Your task to perform on an android device: move a message to another label in the gmail app Image 0: 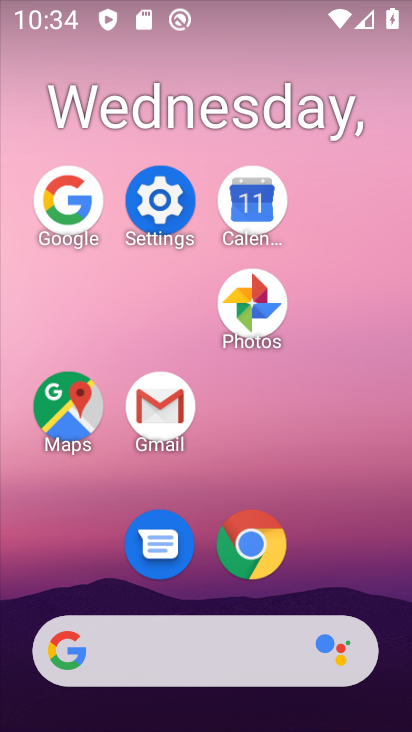
Step 0: click (158, 408)
Your task to perform on an android device: move a message to another label in the gmail app Image 1: 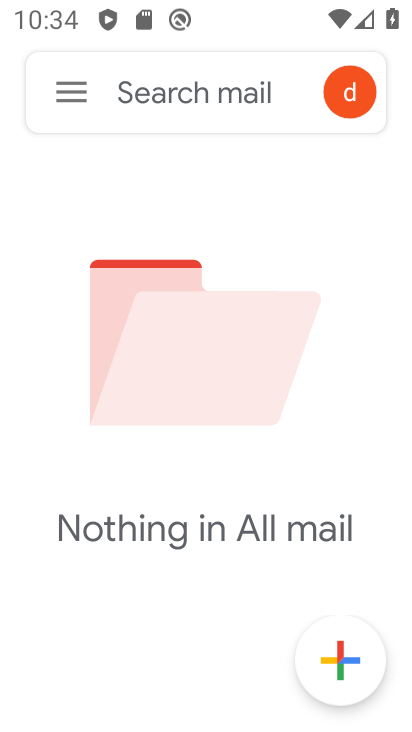
Step 1: click (58, 101)
Your task to perform on an android device: move a message to another label in the gmail app Image 2: 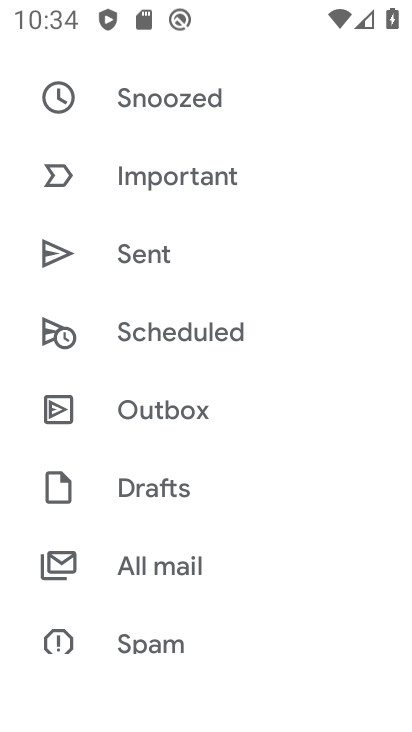
Step 2: click (199, 552)
Your task to perform on an android device: move a message to another label in the gmail app Image 3: 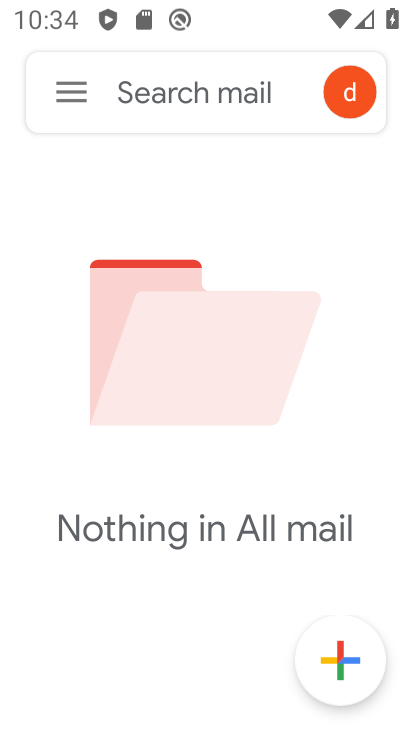
Step 3: task complete